Your task to perform on an android device: Go to settings Image 0: 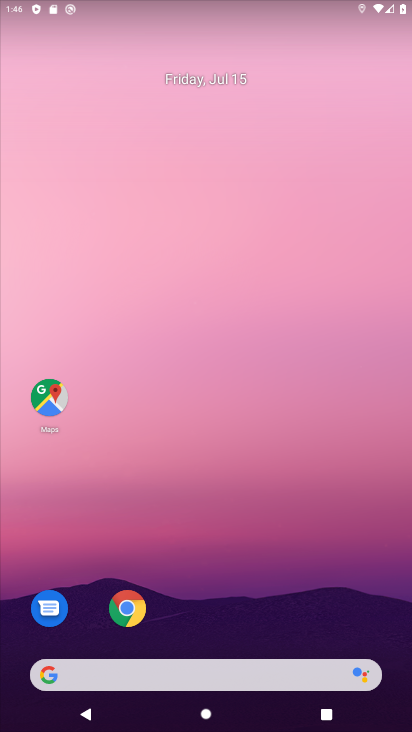
Step 0: drag from (226, 688) to (234, 11)
Your task to perform on an android device: Go to settings Image 1: 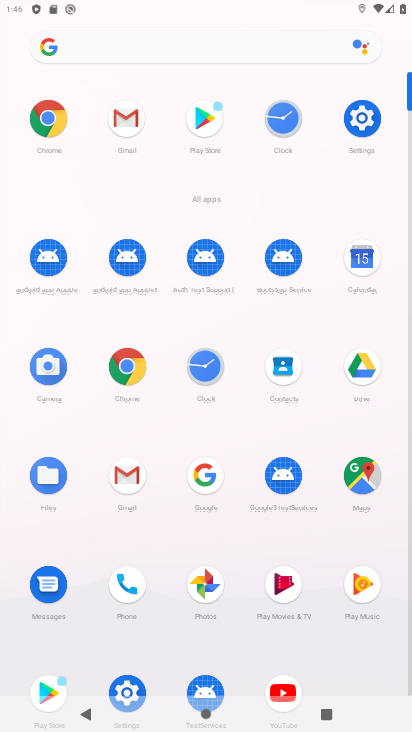
Step 1: click (361, 99)
Your task to perform on an android device: Go to settings Image 2: 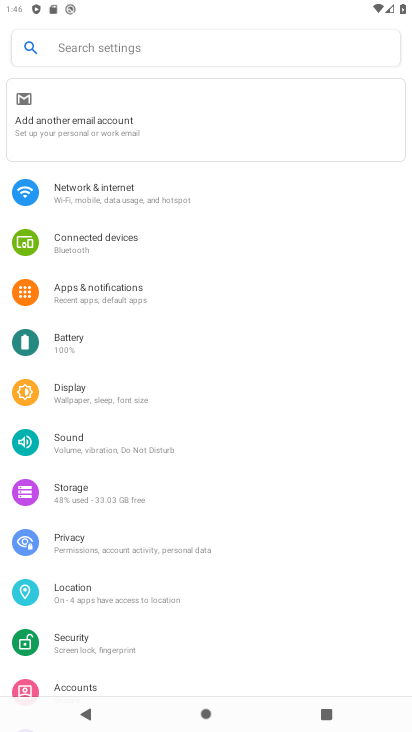
Step 2: task complete